Your task to perform on an android device: move an email to a new category in the gmail app Image 0: 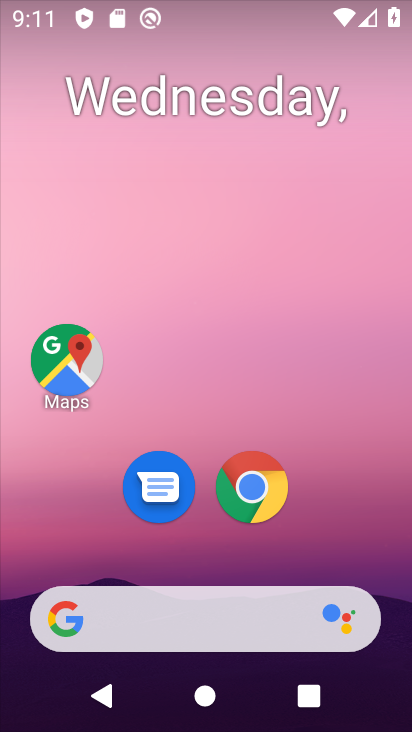
Step 0: drag from (376, 526) to (325, 194)
Your task to perform on an android device: move an email to a new category in the gmail app Image 1: 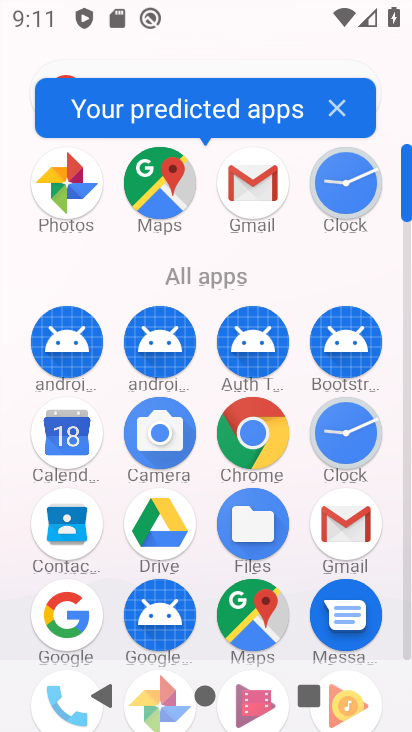
Step 1: click (350, 519)
Your task to perform on an android device: move an email to a new category in the gmail app Image 2: 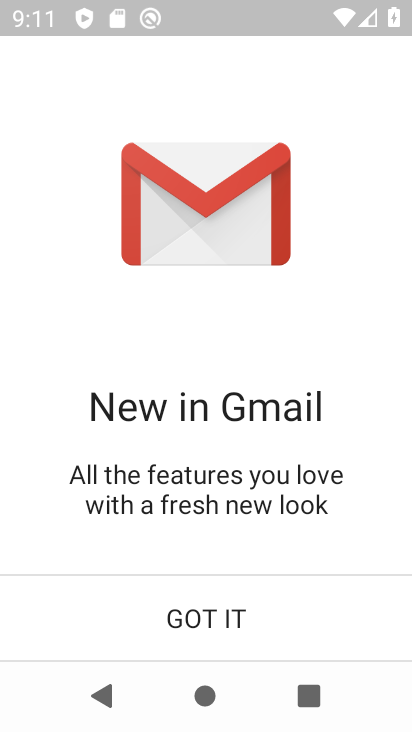
Step 2: click (186, 628)
Your task to perform on an android device: move an email to a new category in the gmail app Image 3: 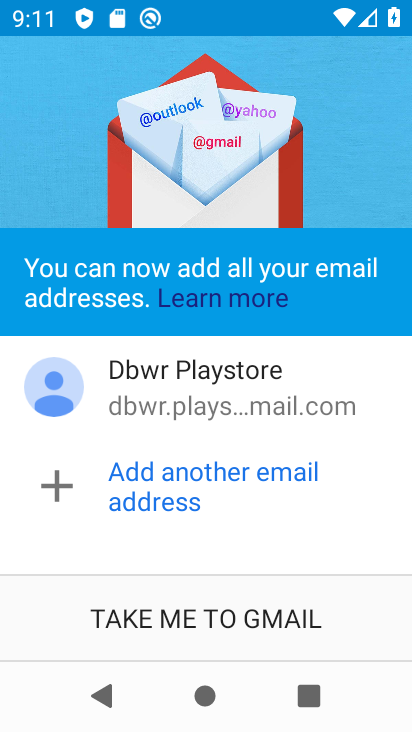
Step 3: click (185, 629)
Your task to perform on an android device: move an email to a new category in the gmail app Image 4: 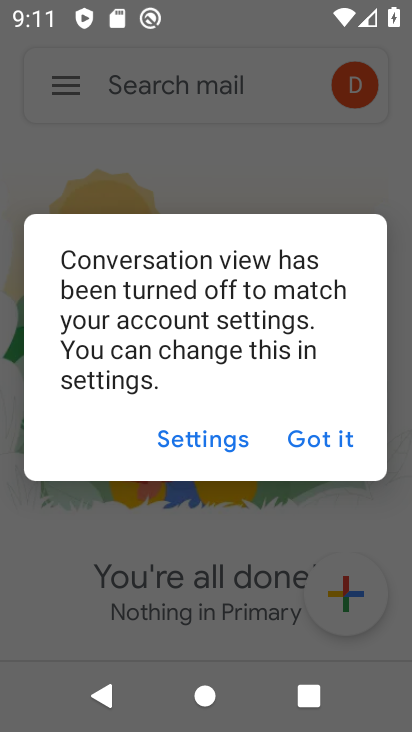
Step 4: click (351, 437)
Your task to perform on an android device: move an email to a new category in the gmail app Image 5: 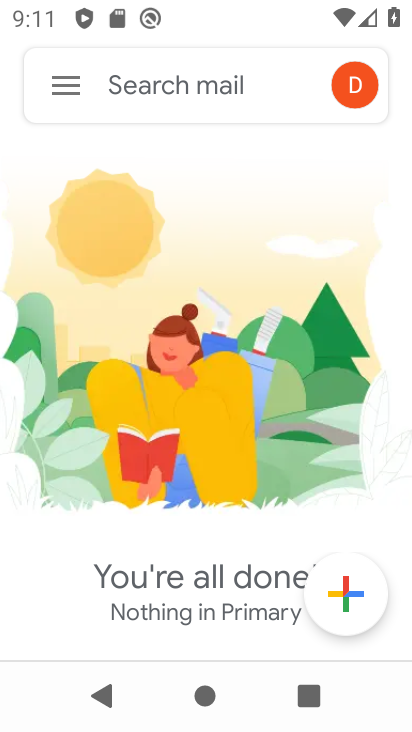
Step 5: click (67, 89)
Your task to perform on an android device: move an email to a new category in the gmail app Image 6: 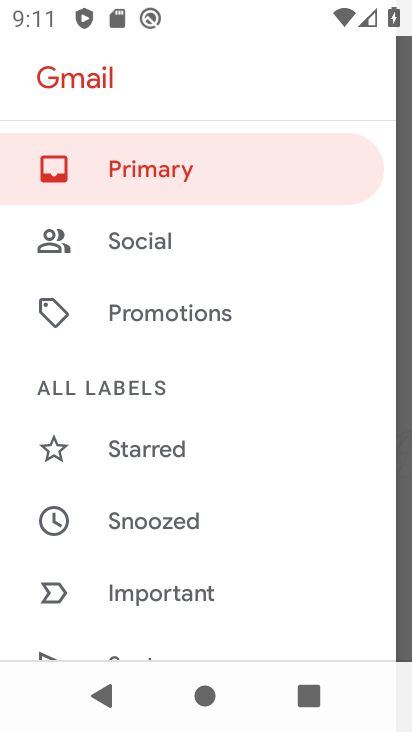
Step 6: drag from (251, 582) to (246, 277)
Your task to perform on an android device: move an email to a new category in the gmail app Image 7: 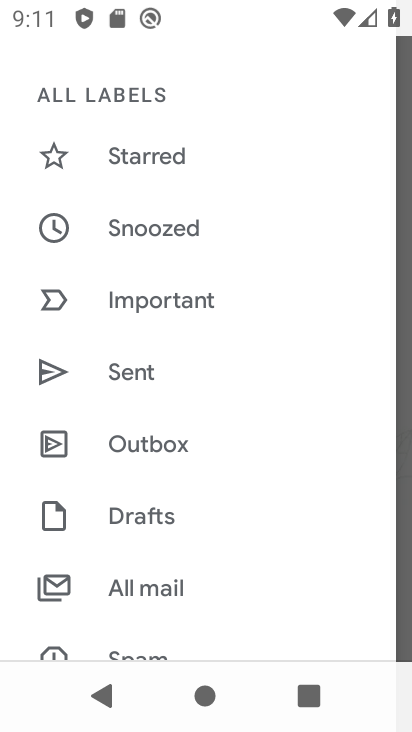
Step 7: click (137, 579)
Your task to perform on an android device: move an email to a new category in the gmail app Image 8: 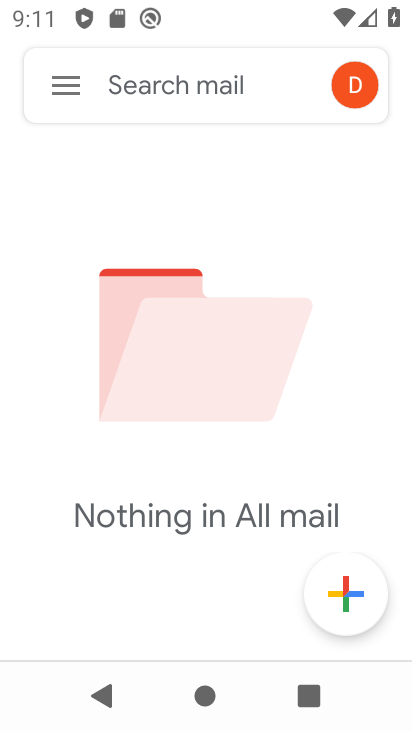
Step 8: task complete